Your task to perform on an android device: change keyboard looks Image 0: 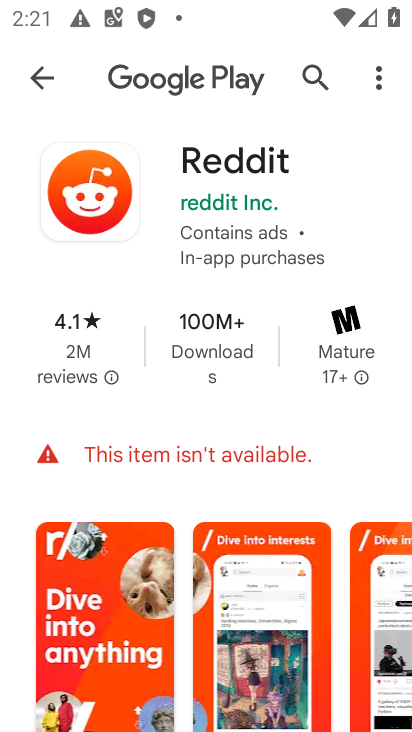
Step 0: press home button
Your task to perform on an android device: change keyboard looks Image 1: 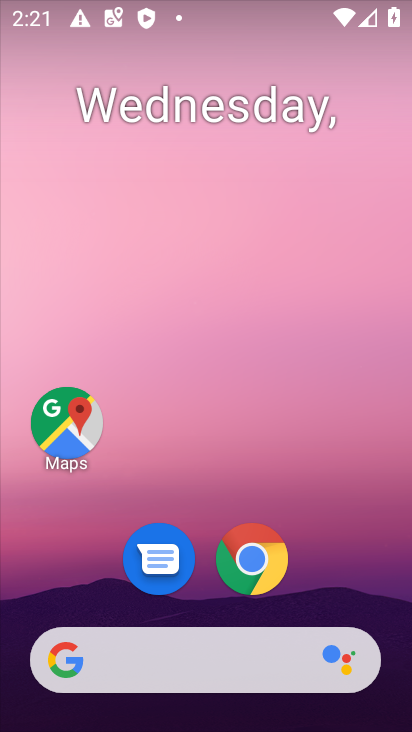
Step 1: drag from (215, 612) to (194, 7)
Your task to perform on an android device: change keyboard looks Image 2: 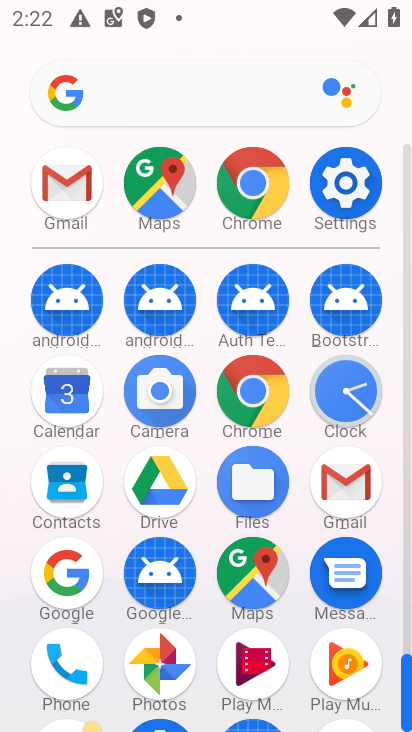
Step 2: click (345, 180)
Your task to perform on an android device: change keyboard looks Image 3: 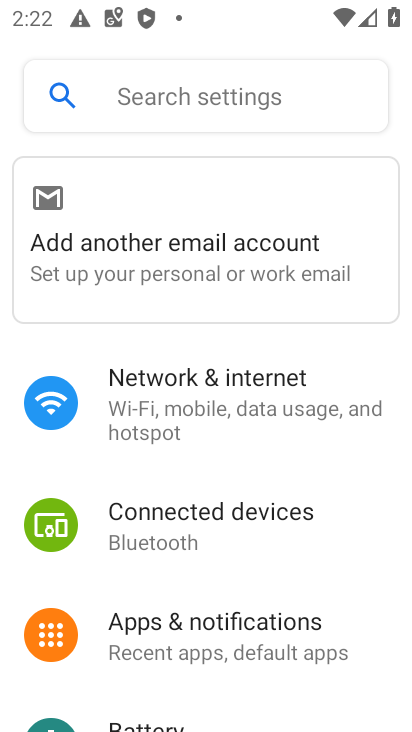
Step 3: drag from (232, 613) to (230, 285)
Your task to perform on an android device: change keyboard looks Image 4: 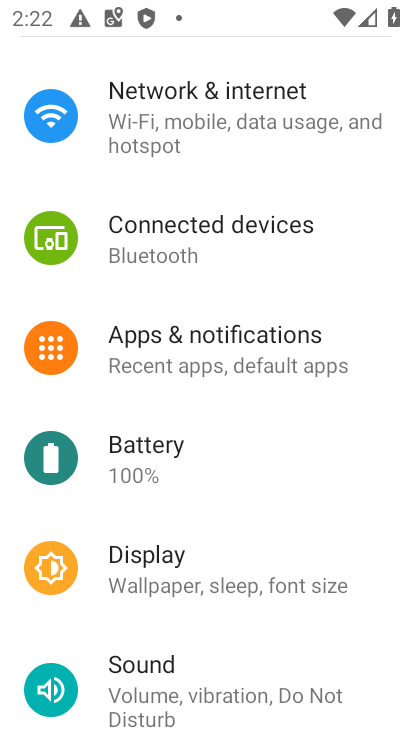
Step 4: drag from (188, 661) to (187, 284)
Your task to perform on an android device: change keyboard looks Image 5: 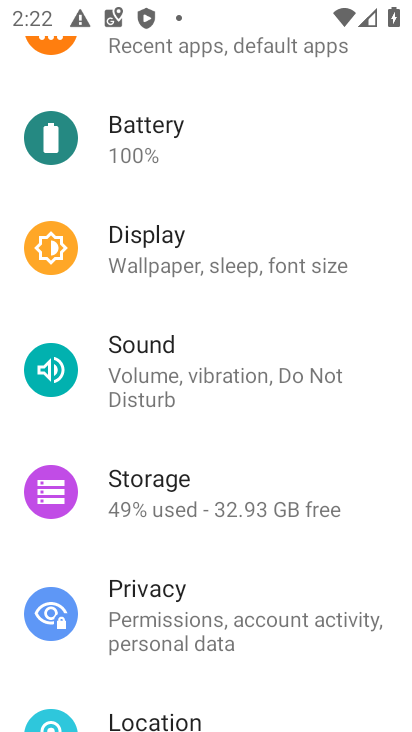
Step 5: drag from (184, 673) to (184, 287)
Your task to perform on an android device: change keyboard looks Image 6: 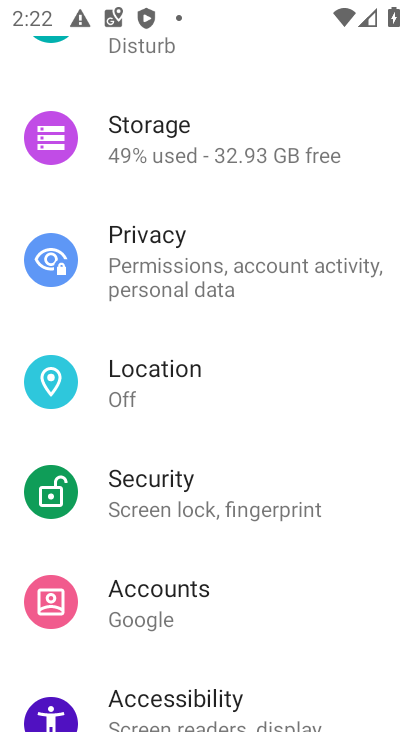
Step 6: drag from (199, 618) to (199, 316)
Your task to perform on an android device: change keyboard looks Image 7: 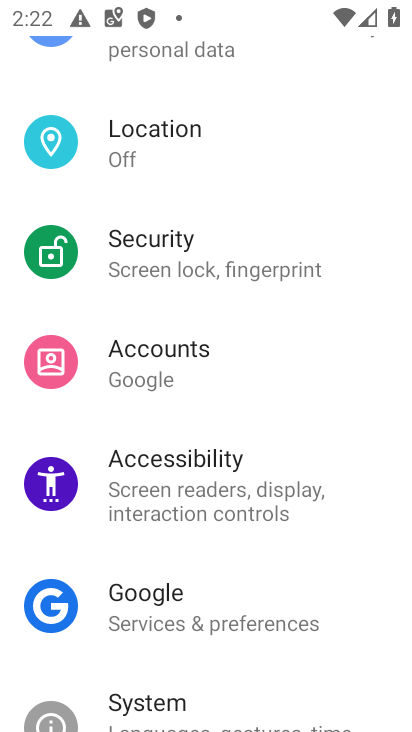
Step 7: drag from (218, 686) to (214, 398)
Your task to perform on an android device: change keyboard looks Image 8: 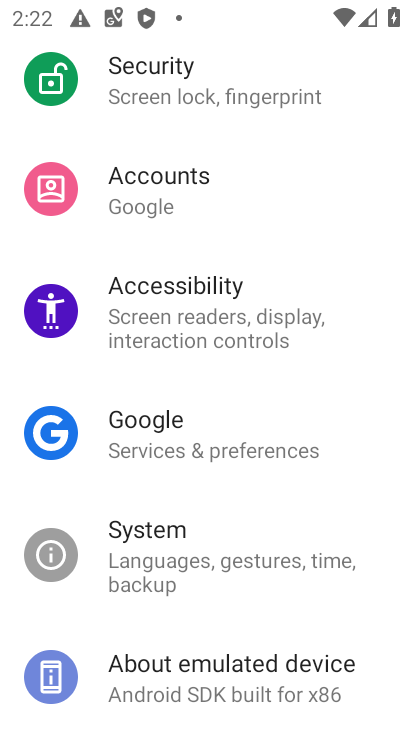
Step 8: drag from (204, 671) to (188, 347)
Your task to perform on an android device: change keyboard looks Image 9: 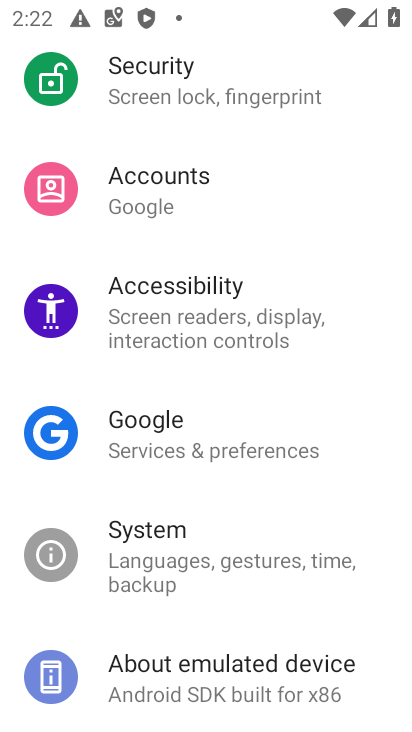
Step 9: drag from (146, 625) to (145, 326)
Your task to perform on an android device: change keyboard looks Image 10: 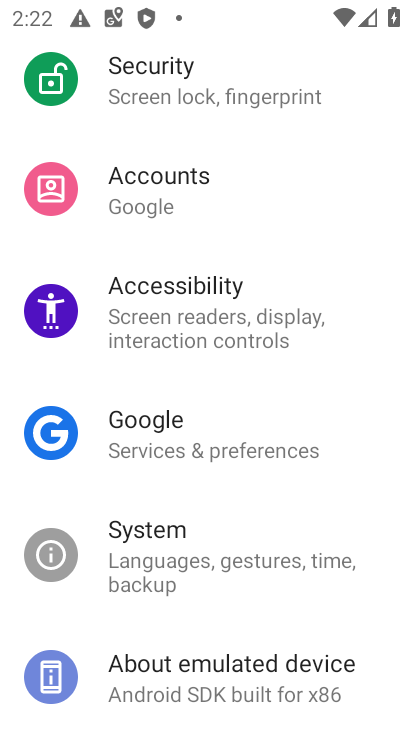
Step 10: click (145, 570)
Your task to perform on an android device: change keyboard looks Image 11: 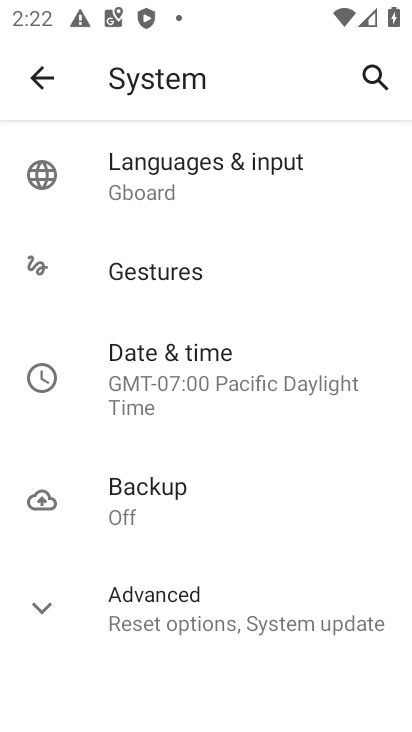
Step 11: click (163, 164)
Your task to perform on an android device: change keyboard looks Image 12: 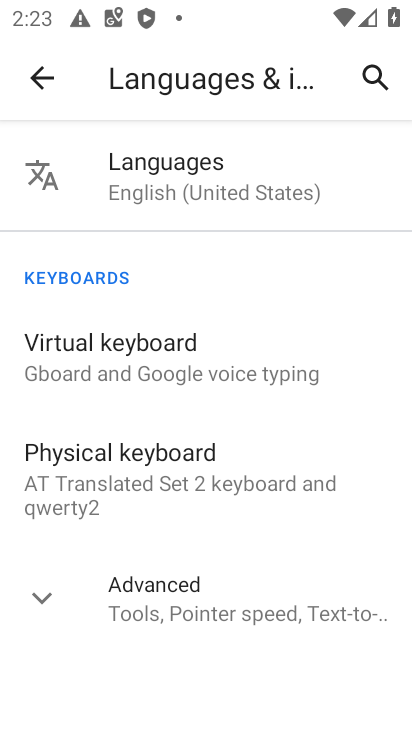
Step 12: click (127, 373)
Your task to perform on an android device: change keyboard looks Image 13: 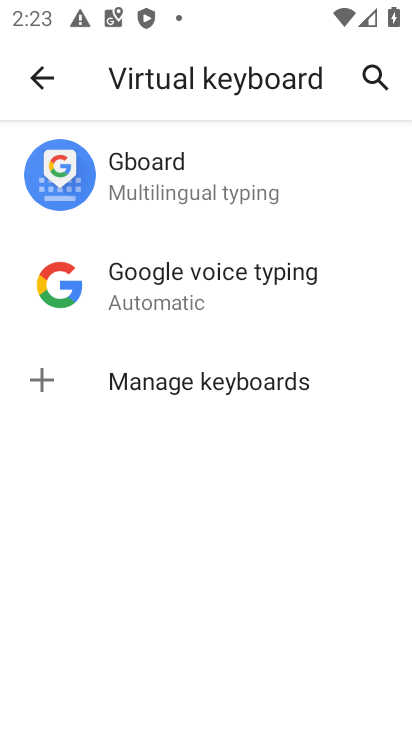
Step 13: click (145, 168)
Your task to perform on an android device: change keyboard looks Image 14: 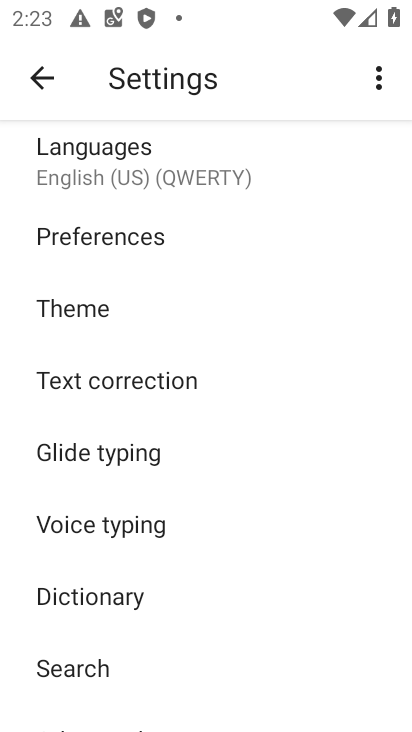
Step 14: click (48, 318)
Your task to perform on an android device: change keyboard looks Image 15: 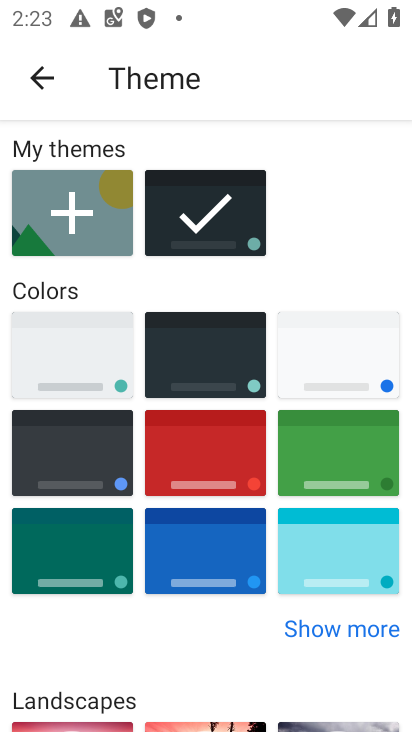
Step 15: click (234, 442)
Your task to perform on an android device: change keyboard looks Image 16: 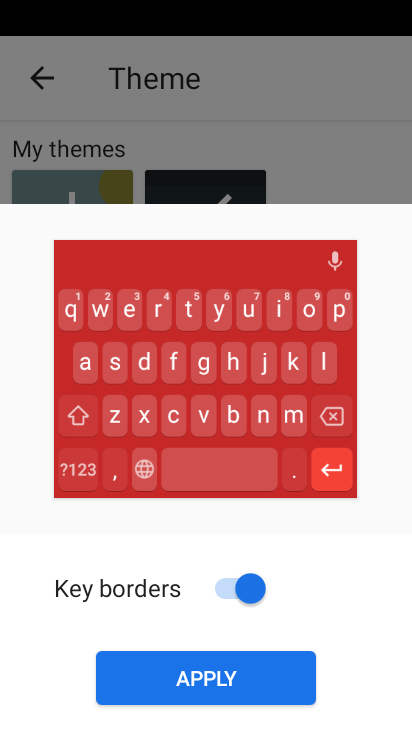
Step 16: click (227, 681)
Your task to perform on an android device: change keyboard looks Image 17: 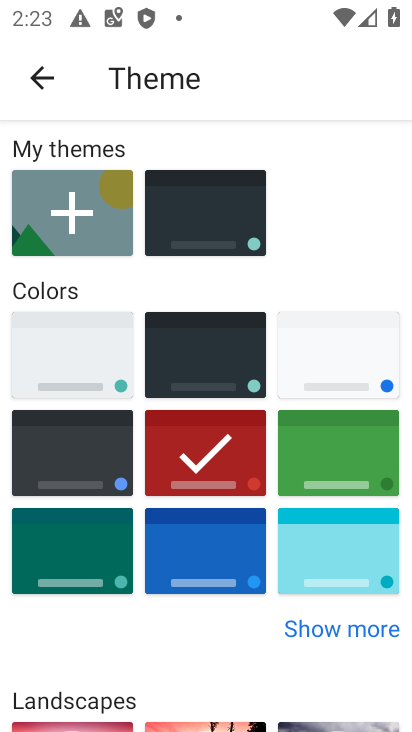
Step 17: task complete